Your task to perform on an android device: turn on airplane mode Image 0: 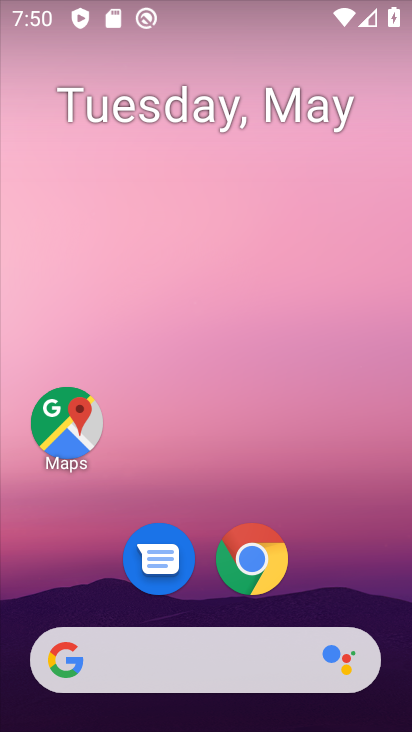
Step 0: drag from (198, 609) to (258, 65)
Your task to perform on an android device: turn on airplane mode Image 1: 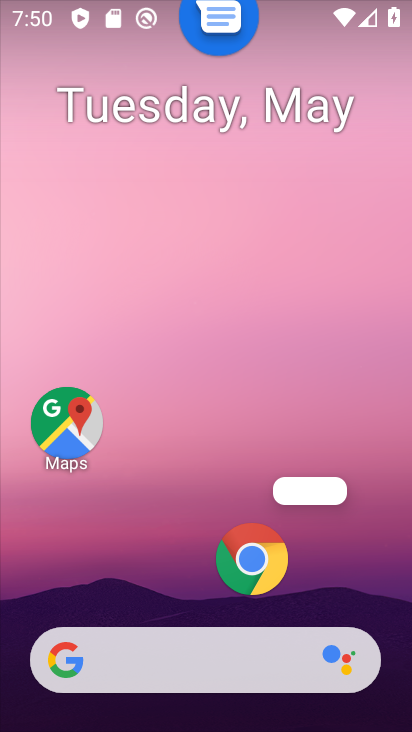
Step 1: drag from (260, 516) to (264, 302)
Your task to perform on an android device: turn on airplane mode Image 2: 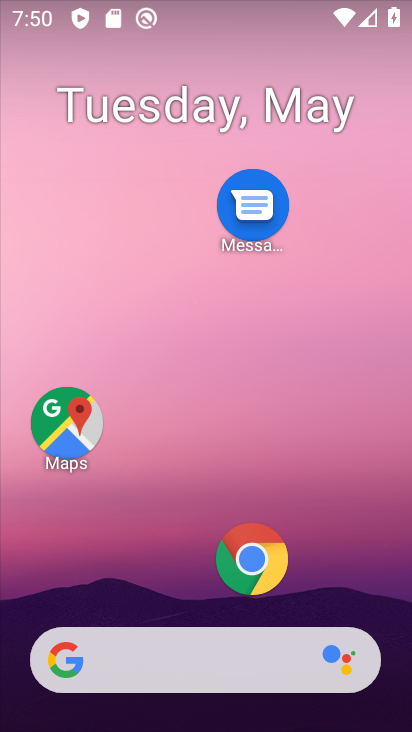
Step 2: drag from (161, 607) to (234, 170)
Your task to perform on an android device: turn on airplane mode Image 3: 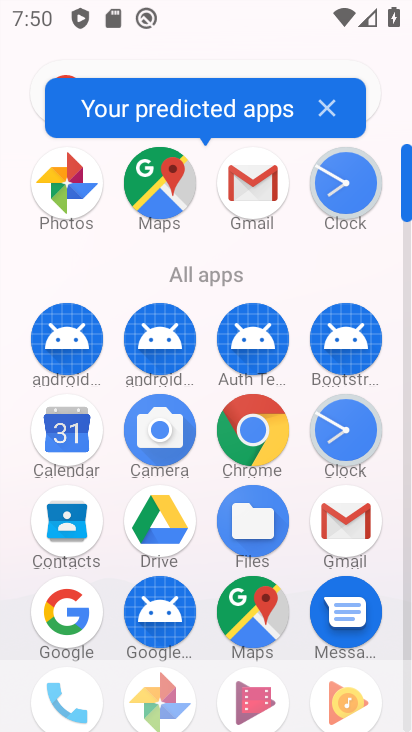
Step 3: drag from (204, 586) to (298, 104)
Your task to perform on an android device: turn on airplane mode Image 4: 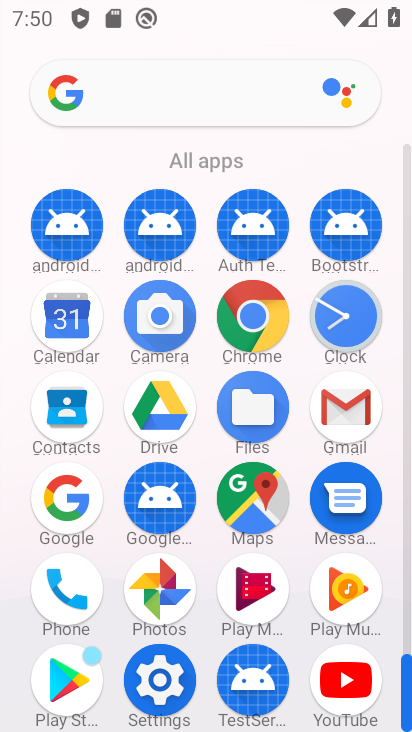
Step 4: drag from (175, 546) to (243, 126)
Your task to perform on an android device: turn on airplane mode Image 5: 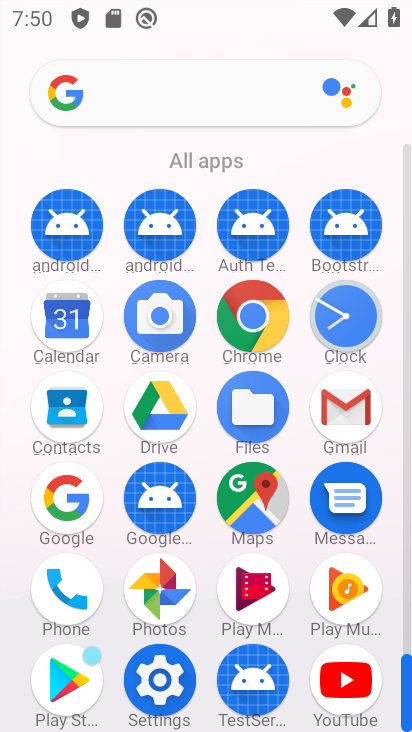
Step 5: click (151, 683)
Your task to perform on an android device: turn on airplane mode Image 6: 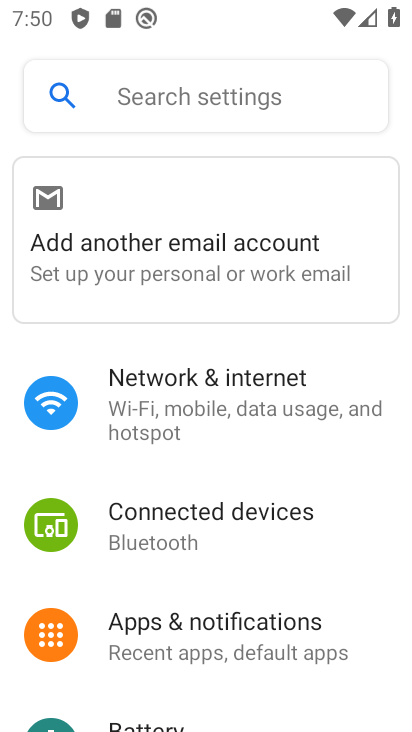
Step 6: click (215, 404)
Your task to perform on an android device: turn on airplane mode Image 7: 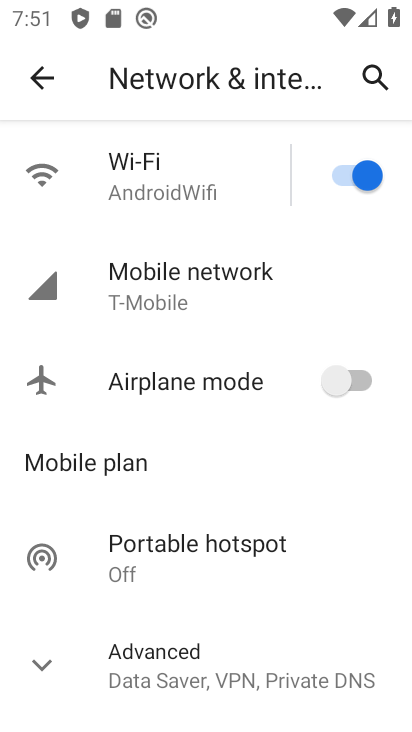
Step 7: click (354, 379)
Your task to perform on an android device: turn on airplane mode Image 8: 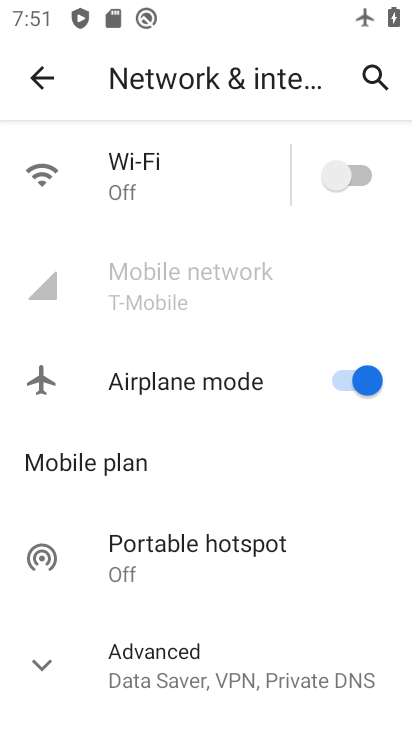
Step 8: task complete